Your task to perform on an android device: make emails show in primary in the gmail app Image 0: 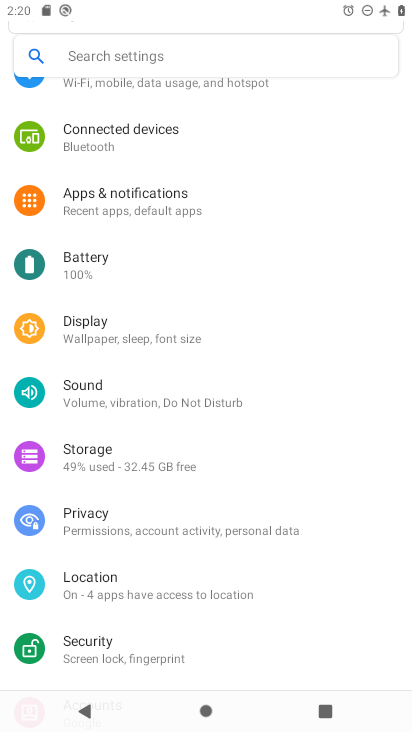
Step 0: press home button
Your task to perform on an android device: make emails show in primary in the gmail app Image 1: 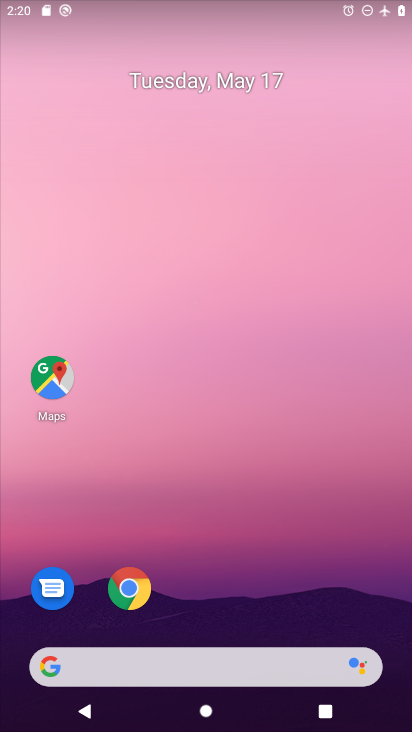
Step 1: drag from (228, 617) to (128, 94)
Your task to perform on an android device: make emails show in primary in the gmail app Image 2: 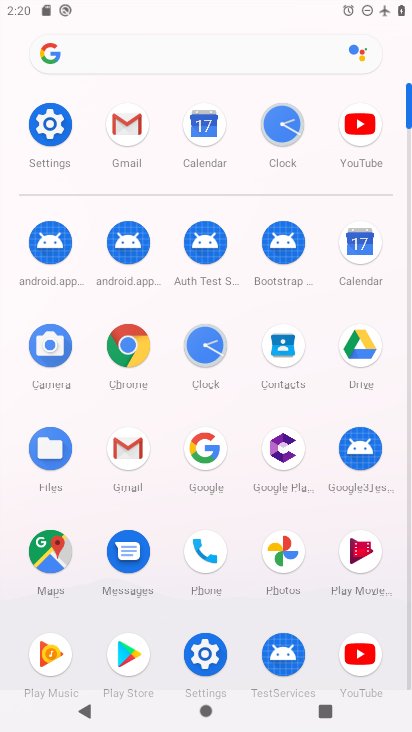
Step 2: click (145, 459)
Your task to perform on an android device: make emails show in primary in the gmail app Image 3: 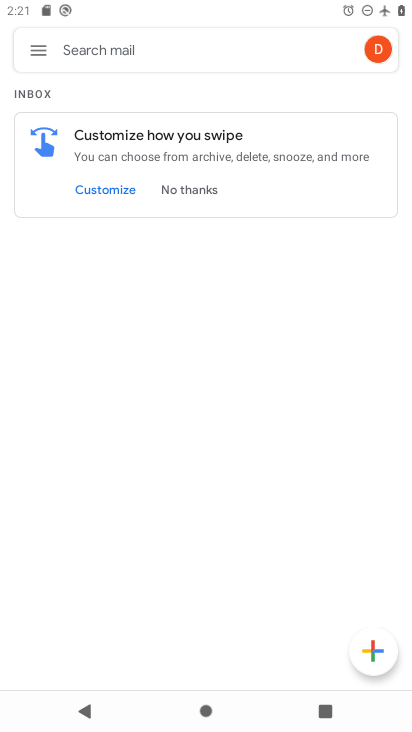
Step 3: click (42, 46)
Your task to perform on an android device: make emails show in primary in the gmail app Image 4: 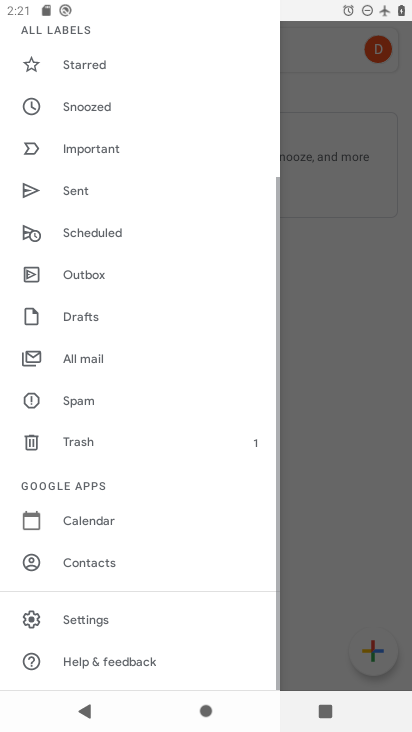
Step 4: drag from (93, 84) to (72, 398)
Your task to perform on an android device: make emails show in primary in the gmail app Image 5: 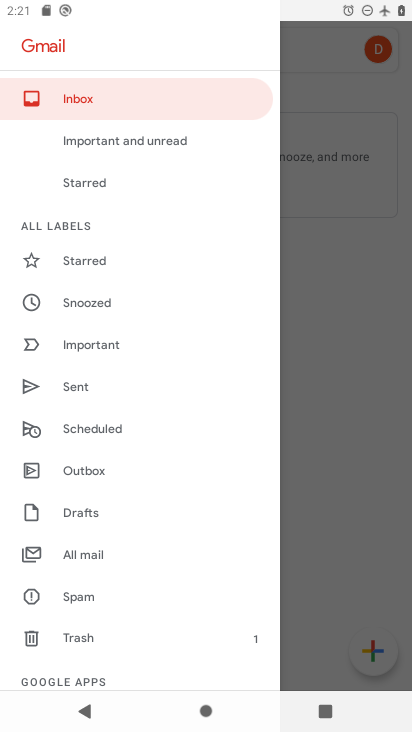
Step 5: drag from (142, 600) to (115, 248)
Your task to perform on an android device: make emails show in primary in the gmail app Image 6: 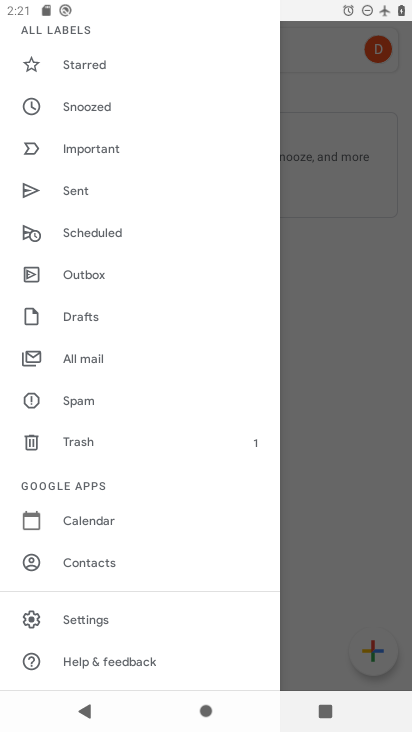
Step 6: click (82, 615)
Your task to perform on an android device: make emails show in primary in the gmail app Image 7: 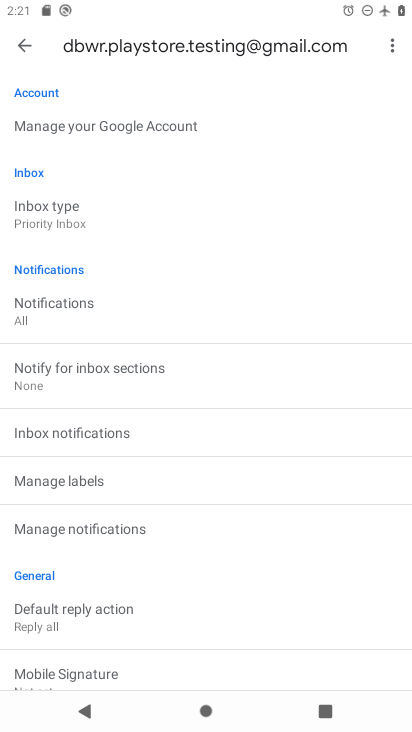
Step 7: click (52, 221)
Your task to perform on an android device: make emails show in primary in the gmail app Image 8: 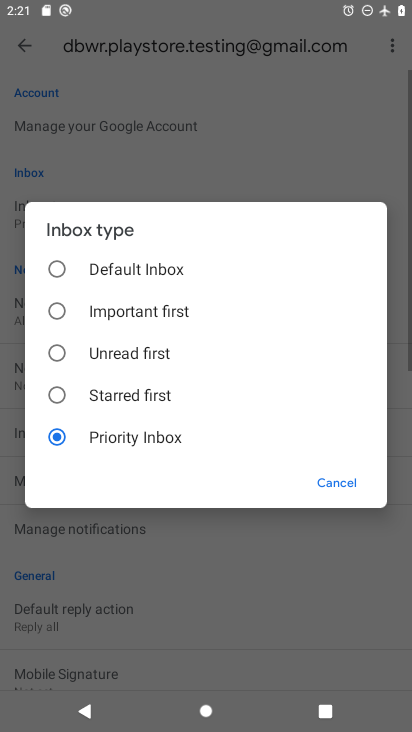
Step 8: click (60, 271)
Your task to perform on an android device: make emails show in primary in the gmail app Image 9: 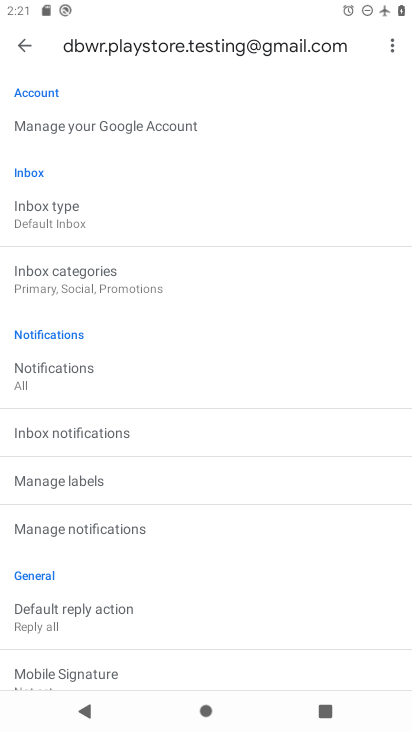
Step 9: press back button
Your task to perform on an android device: make emails show in primary in the gmail app Image 10: 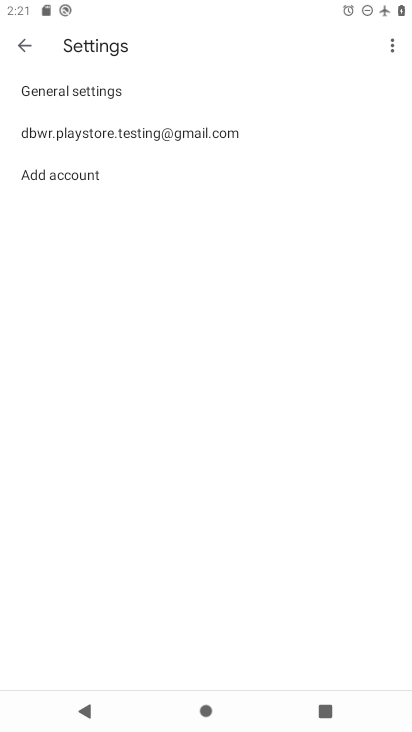
Step 10: press back button
Your task to perform on an android device: make emails show in primary in the gmail app Image 11: 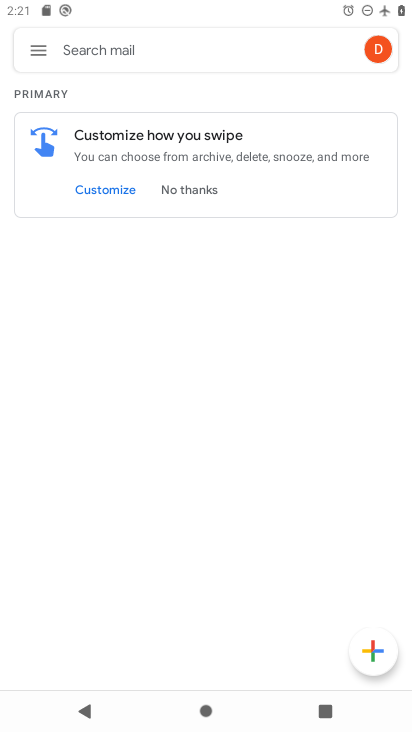
Step 11: click (30, 57)
Your task to perform on an android device: make emails show in primary in the gmail app Image 12: 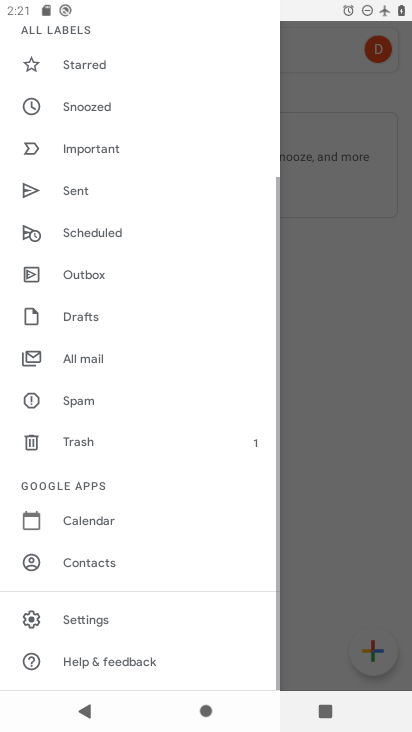
Step 12: task complete